Your task to perform on an android device: Open the web browser Image 0: 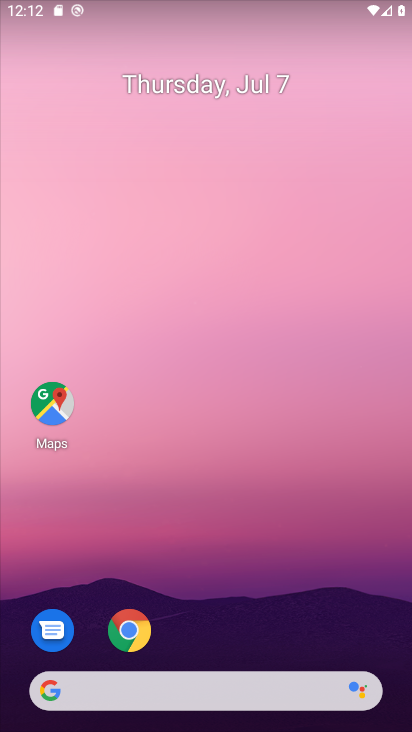
Step 0: drag from (224, 615) to (227, 330)
Your task to perform on an android device: Open the web browser Image 1: 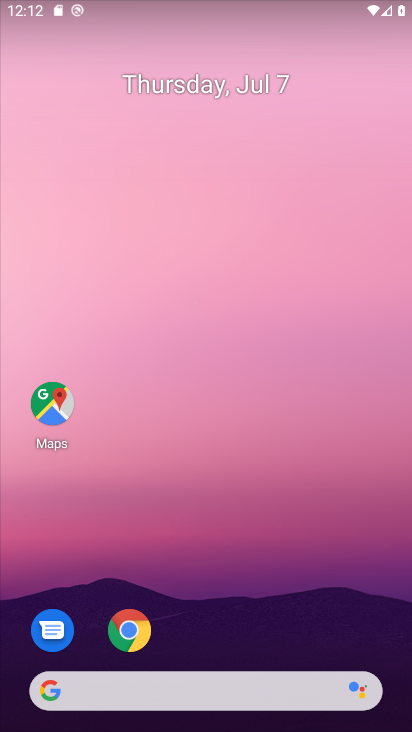
Step 1: drag from (230, 573) to (226, 224)
Your task to perform on an android device: Open the web browser Image 2: 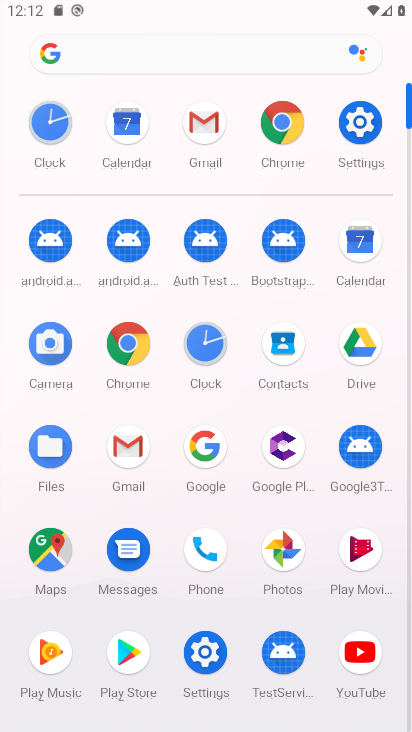
Step 2: click (138, 337)
Your task to perform on an android device: Open the web browser Image 3: 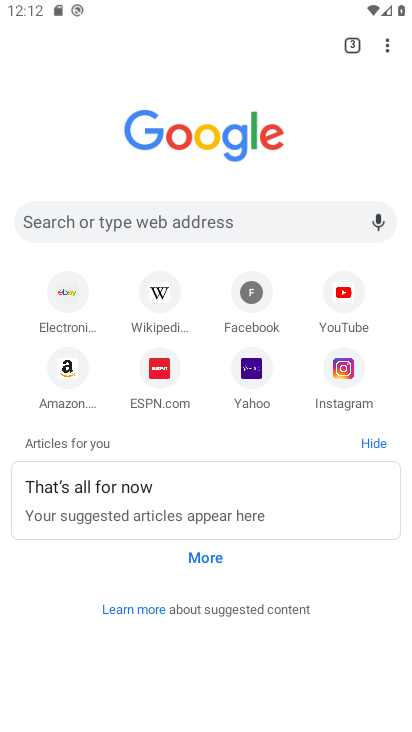
Step 3: task complete